Your task to perform on an android device: Search for Italian restaurants on Maps Image 0: 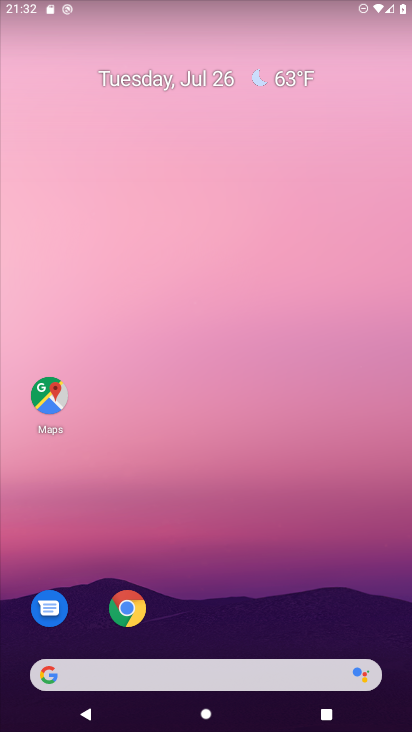
Step 0: click (37, 399)
Your task to perform on an android device: Search for Italian restaurants on Maps Image 1: 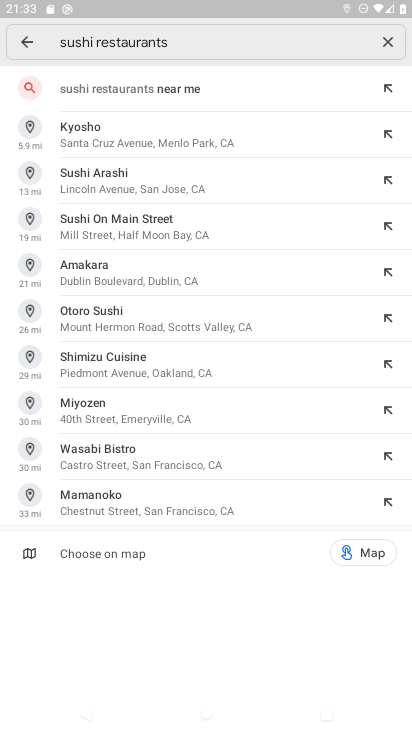
Step 1: click (20, 41)
Your task to perform on an android device: Search for Italian restaurants on Maps Image 2: 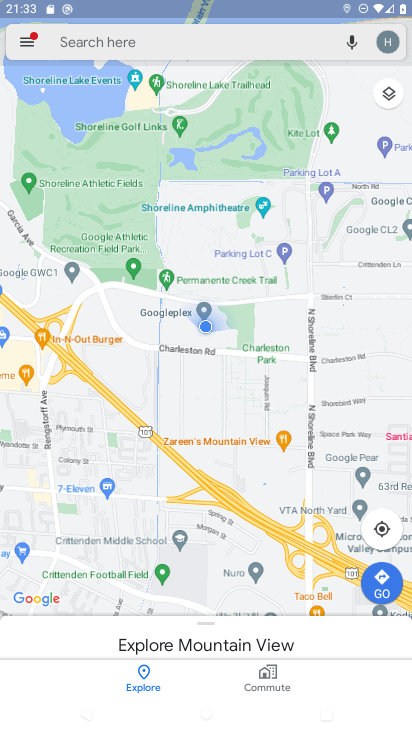
Step 2: click (96, 32)
Your task to perform on an android device: Search for Italian restaurants on Maps Image 3: 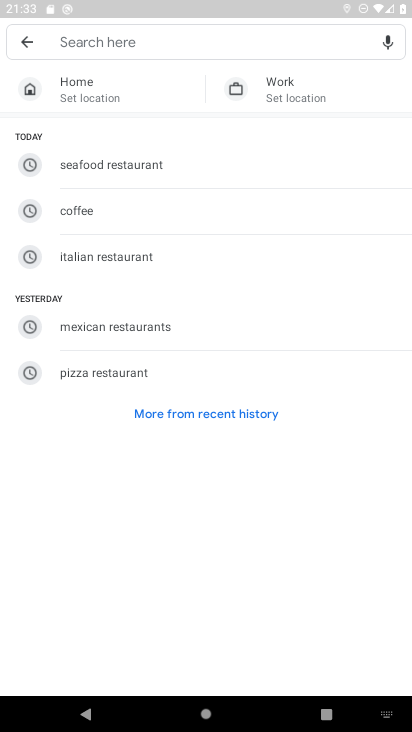
Step 3: type "Italian restaurants "
Your task to perform on an android device: Search for Italian restaurants on Maps Image 4: 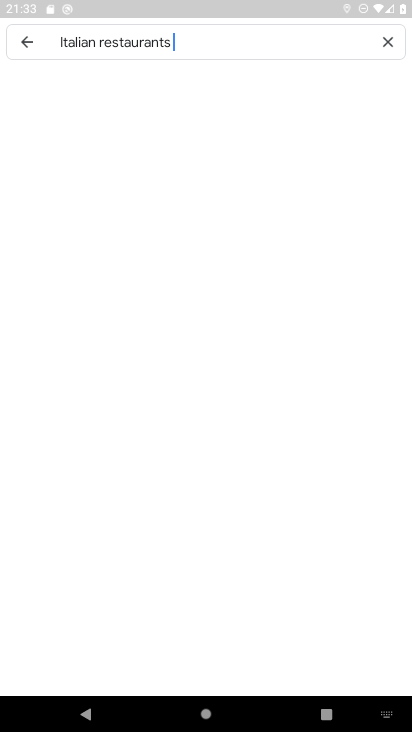
Step 4: type ""
Your task to perform on an android device: Search for Italian restaurants on Maps Image 5: 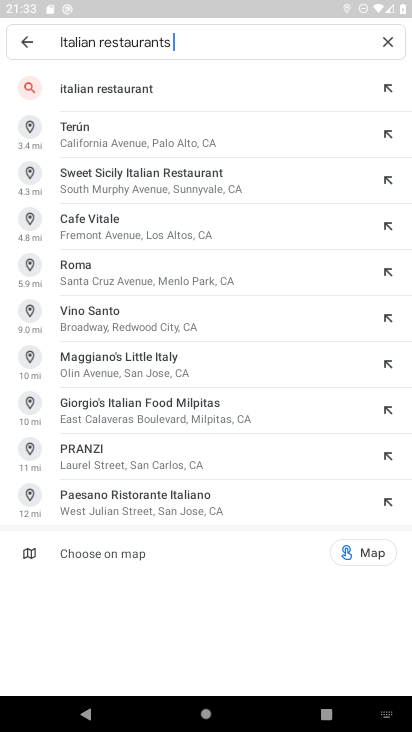
Step 5: click (98, 88)
Your task to perform on an android device: Search for Italian restaurants on Maps Image 6: 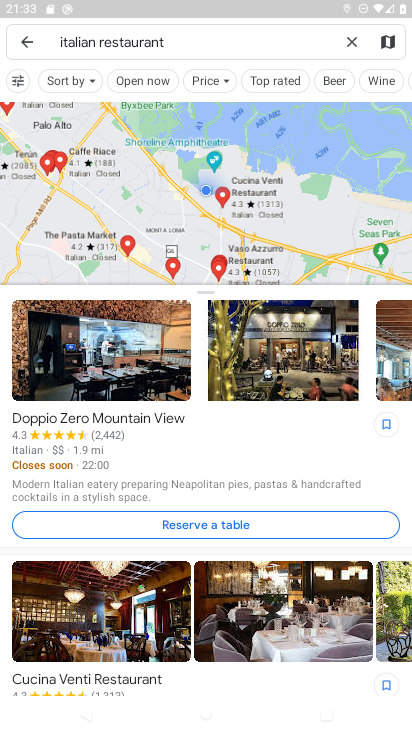
Step 6: task complete